Your task to perform on an android device: Open Wikipedia Image 0: 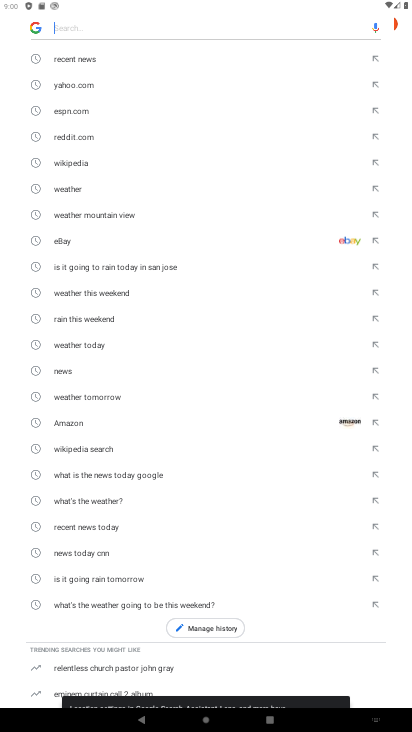
Step 0: press home button
Your task to perform on an android device: Open Wikipedia Image 1: 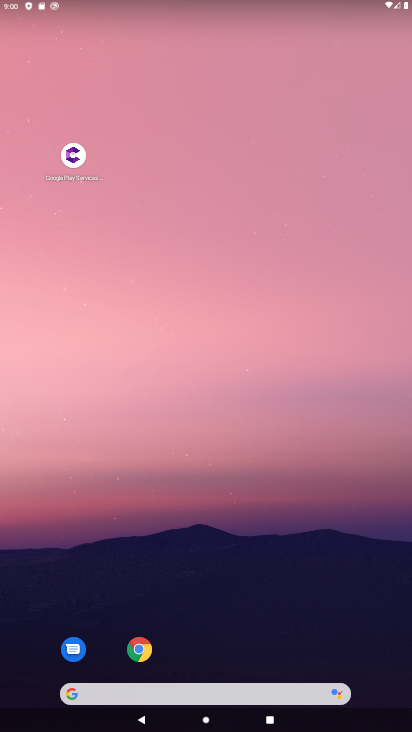
Step 1: drag from (254, 328) to (310, 80)
Your task to perform on an android device: Open Wikipedia Image 2: 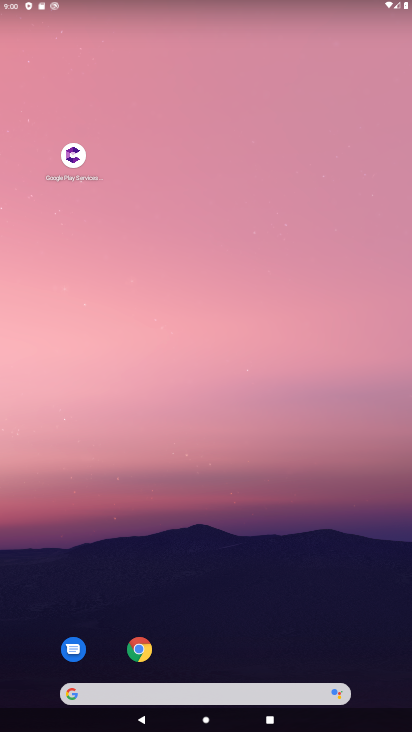
Step 2: drag from (197, 701) to (300, 103)
Your task to perform on an android device: Open Wikipedia Image 3: 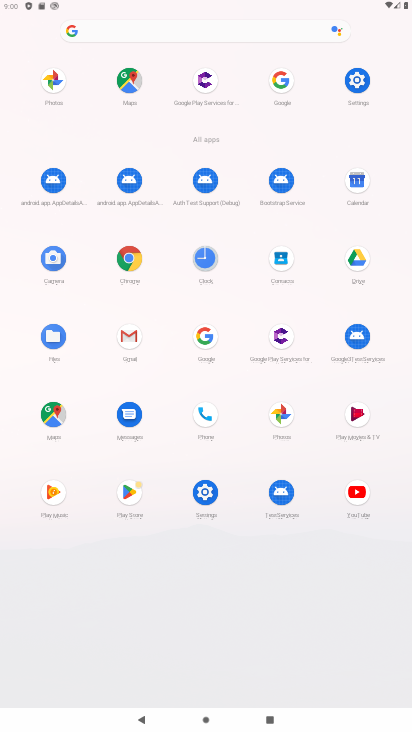
Step 3: click (124, 259)
Your task to perform on an android device: Open Wikipedia Image 4: 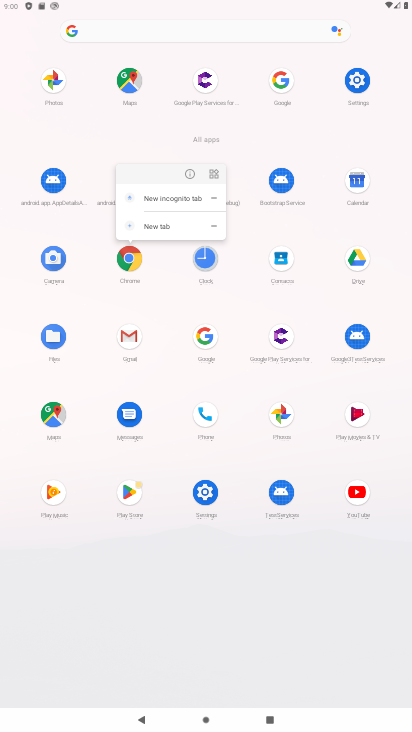
Step 4: click (126, 261)
Your task to perform on an android device: Open Wikipedia Image 5: 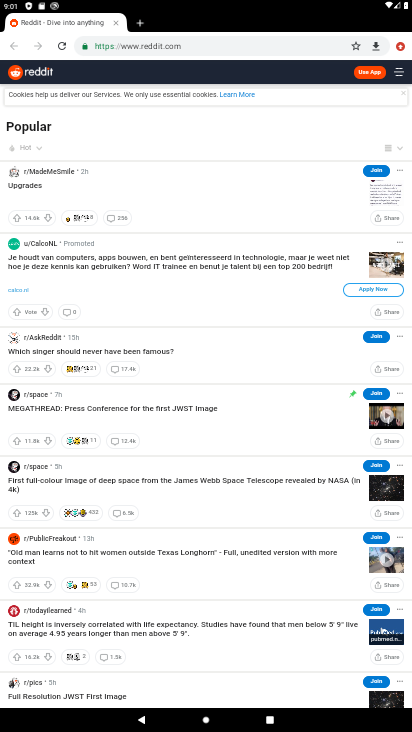
Step 5: drag from (393, 45) to (366, 76)
Your task to perform on an android device: Open Wikipedia Image 6: 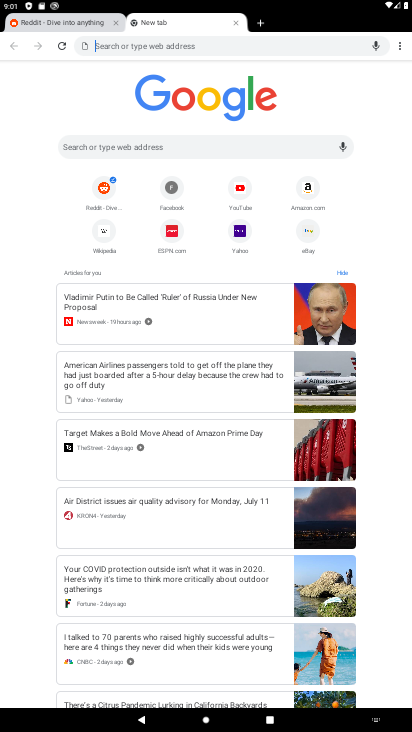
Step 6: click (113, 229)
Your task to perform on an android device: Open Wikipedia Image 7: 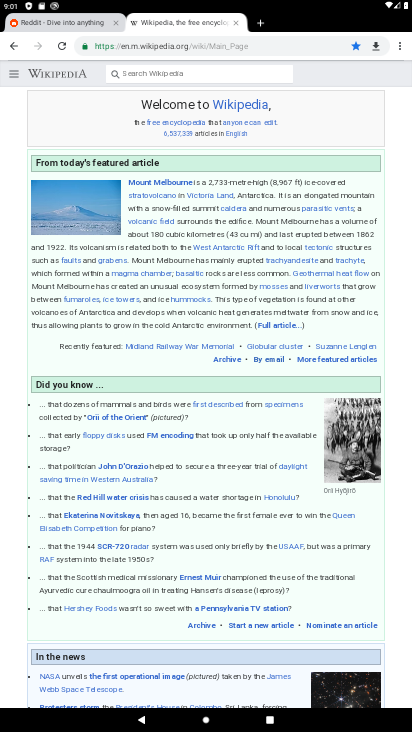
Step 7: task complete